Your task to perform on an android device: Open the phone app and click the voicemail tab. Image 0: 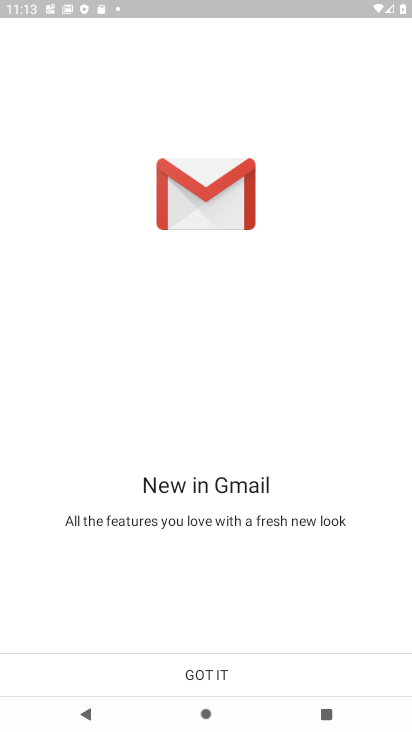
Step 0: press home button
Your task to perform on an android device: Open the phone app and click the voicemail tab. Image 1: 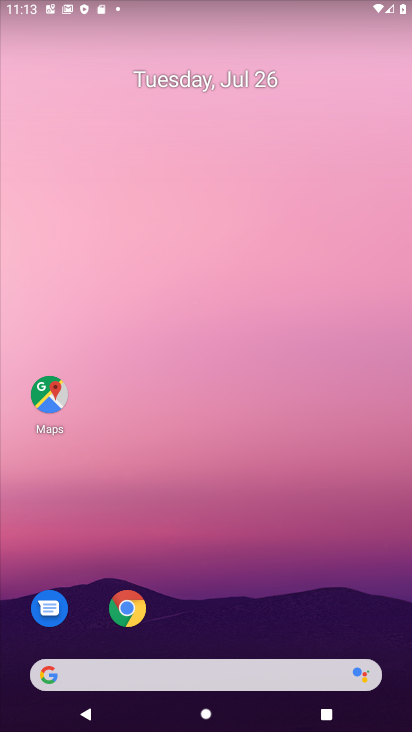
Step 1: drag from (261, 633) to (182, 31)
Your task to perform on an android device: Open the phone app and click the voicemail tab. Image 2: 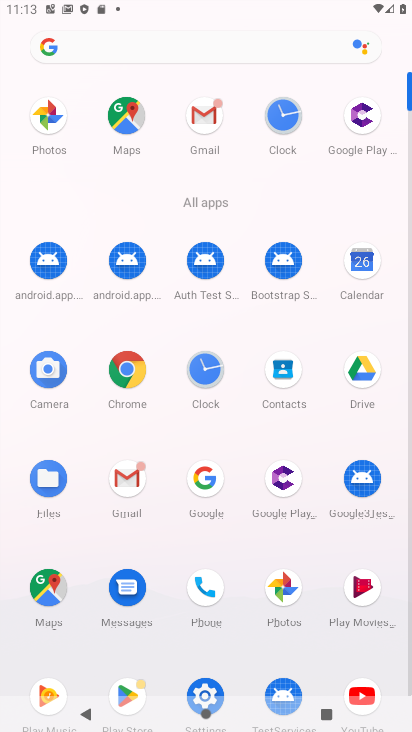
Step 2: click (211, 586)
Your task to perform on an android device: Open the phone app and click the voicemail tab. Image 3: 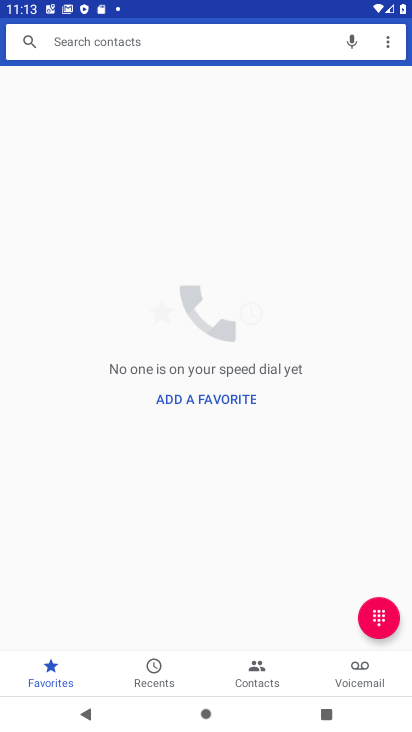
Step 3: click (356, 690)
Your task to perform on an android device: Open the phone app and click the voicemail tab. Image 4: 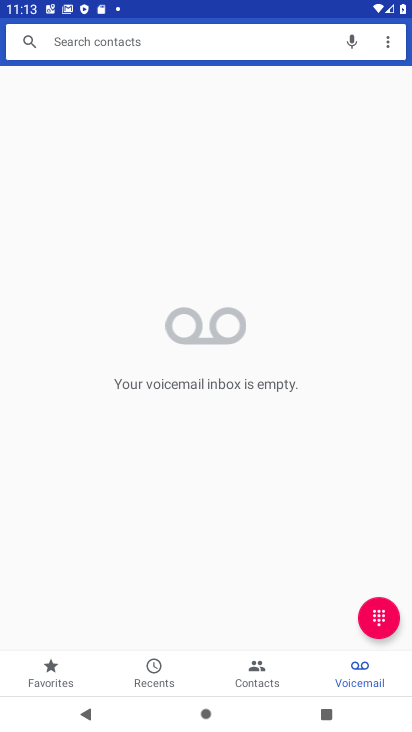
Step 4: task complete